Your task to perform on an android device: check battery use Image 0: 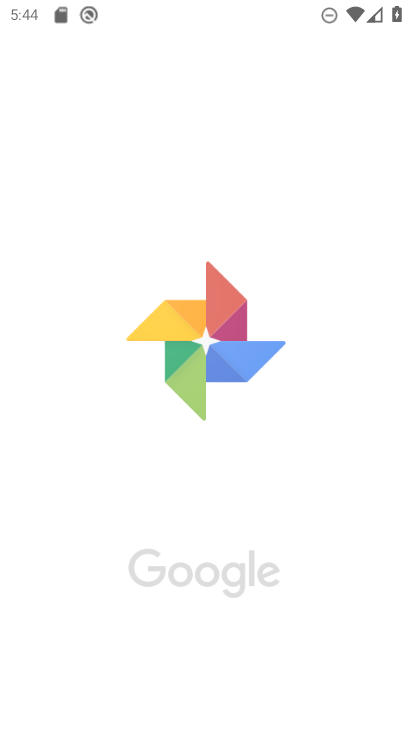
Step 0: drag from (208, 626) to (203, 89)
Your task to perform on an android device: check battery use Image 1: 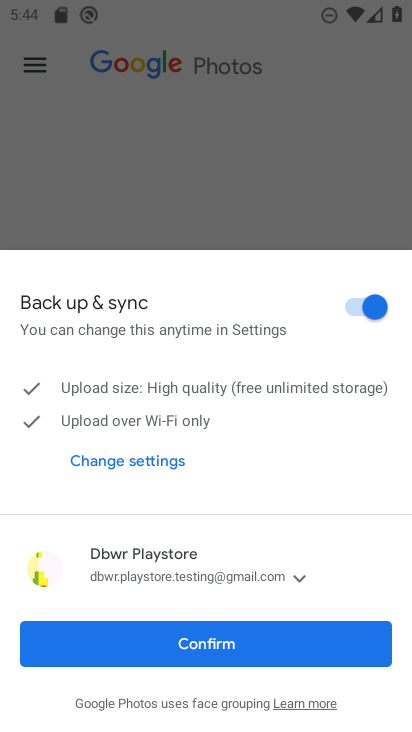
Step 1: press home button
Your task to perform on an android device: check battery use Image 2: 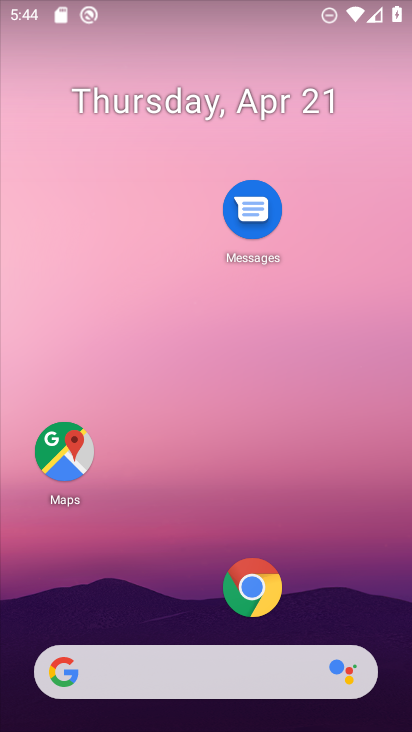
Step 2: drag from (196, 612) to (190, 173)
Your task to perform on an android device: check battery use Image 3: 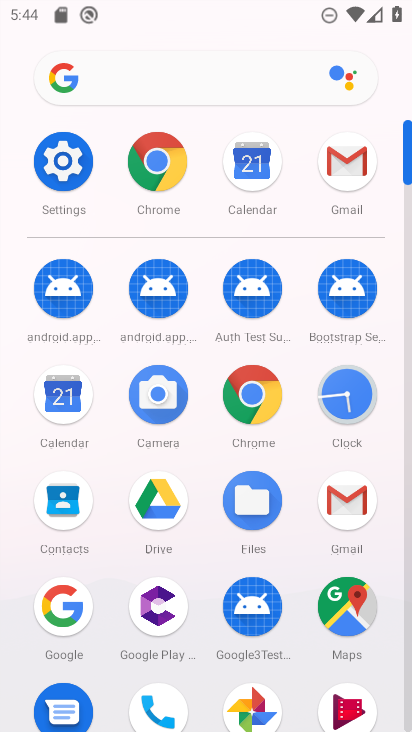
Step 3: click (60, 161)
Your task to perform on an android device: check battery use Image 4: 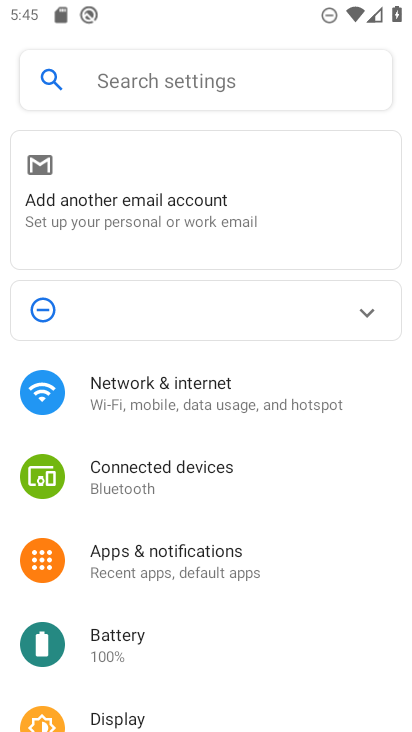
Step 4: click (153, 641)
Your task to perform on an android device: check battery use Image 5: 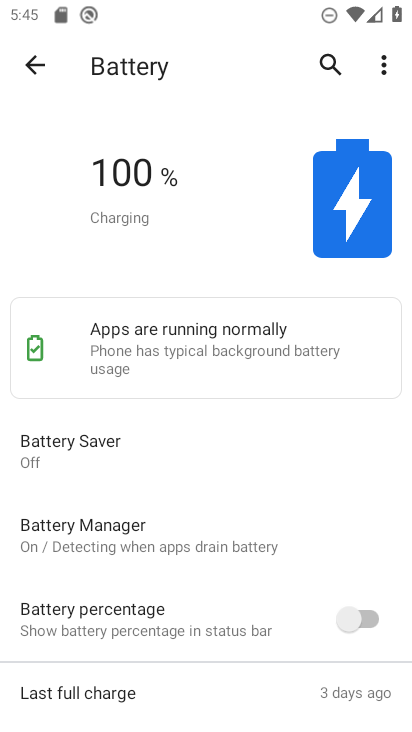
Step 5: click (390, 59)
Your task to perform on an android device: check battery use Image 6: 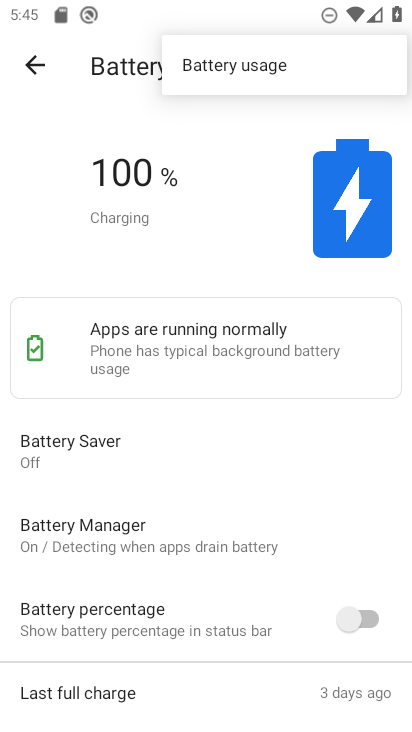
Step 6: click (306, 63)
Your task to perform on an android device: check battery use Image 7: 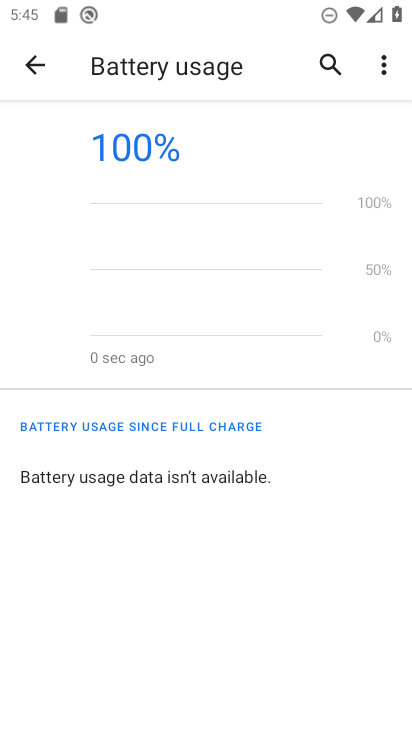
Step 7: task complete